Your task to perform on an android device: Open location settings Image 0: 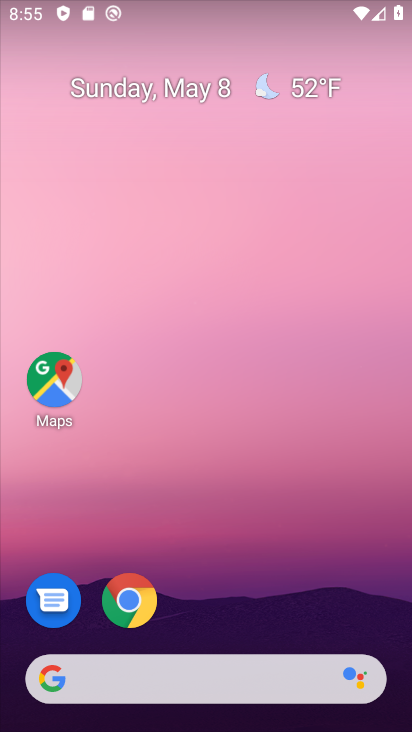
Step 0: drag from (183, 601) to (267, 42)
Your task to perform on an android device: Open location settings Image 1: 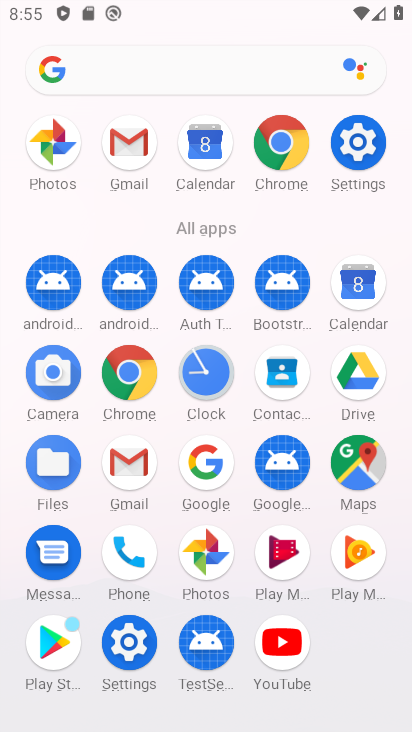
Step 1: click (364, 150)
Your task to perform on an android device: Open location settings Image 2: 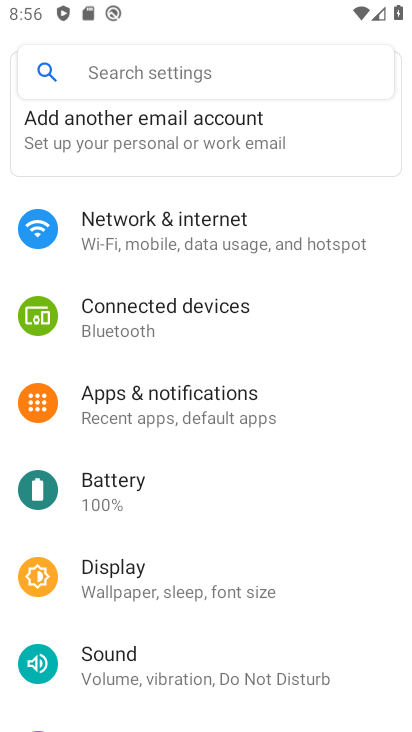
Step 2: drag from (117, 582) to (174, 250)
Your task to perform on an android device: Open location settings Image 3: 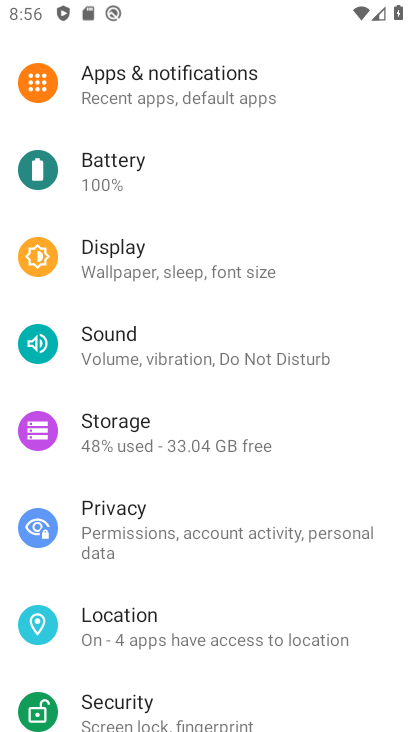
Step 3: click (138, 635)
Your task to perform on an android device: Open location settings Image 4: 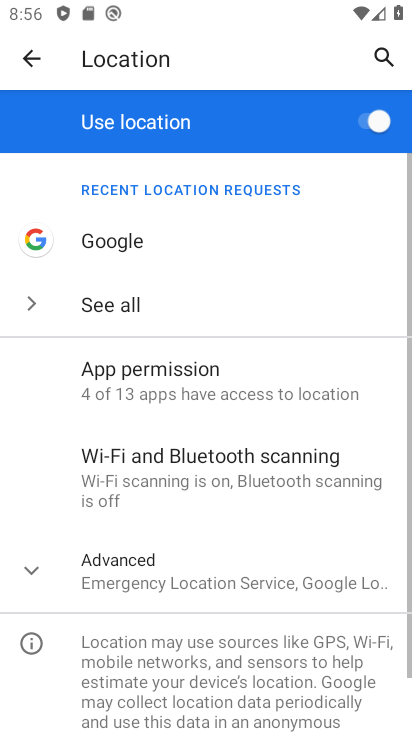
Step 4: task complete